Your task to perform on an android device: Open the calendar and show me this week's events Image 0: 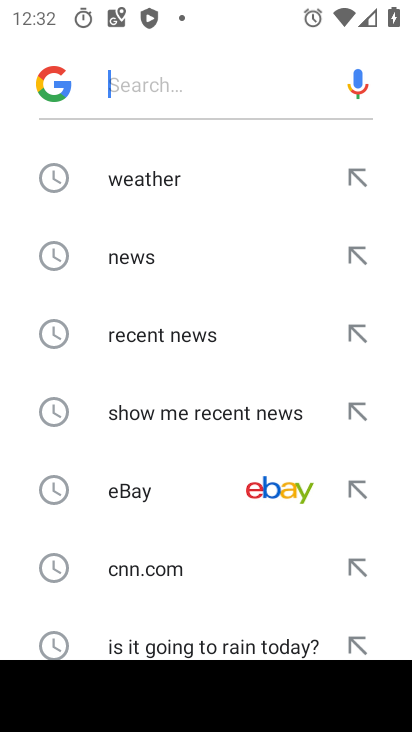
Step 0: press home button
Your task to perform on an android device: Open the calendar and show me this week's events Image 1: 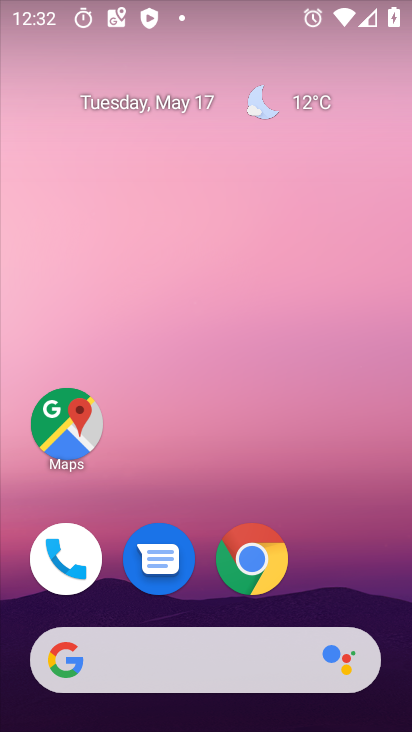
Step 1: drag from (276, 532) to (246, 141)
Your task to perform on an android device: Open the calendar and show me this week's events Image 2: 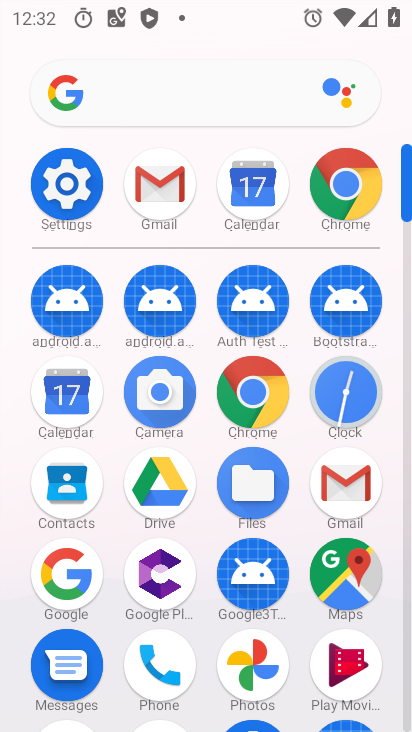
Step 2: click (72, 398)
Your task to perform on an android device: Open the calendar and show me this week's events Image 3: 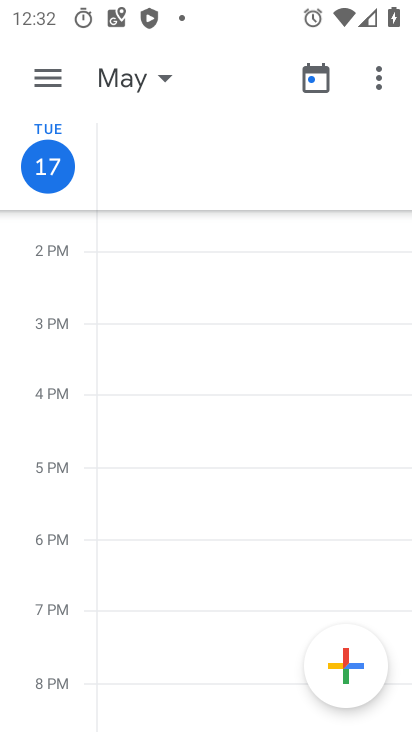
Step 3: click (111, 78)
Your task to perform on an android device: Open the calendar and show me this week's events Image 4: 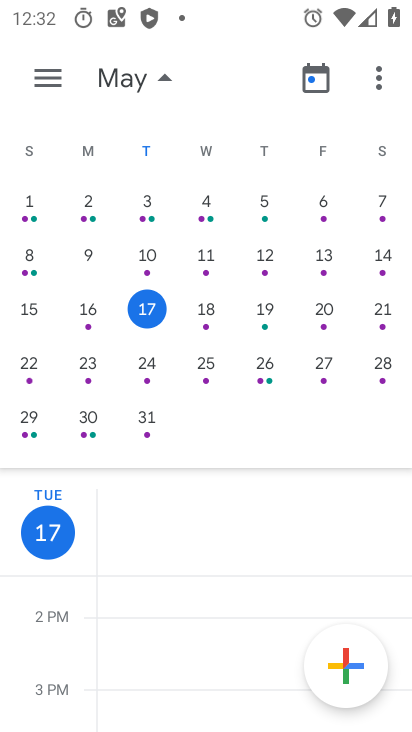
Step 4: click (54, 80)
Your task to perform on an android device: Open the calendar and show me this week's events Image 5: 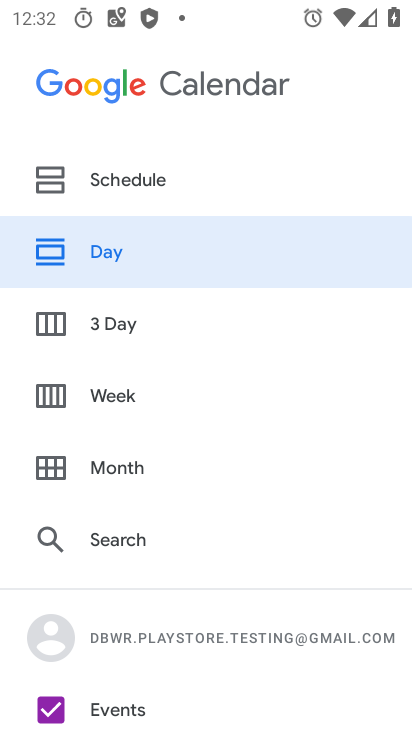
Step 5: click (113, 391)
Your task to perform on an android device: Open the calendar and show me this week's events Image 6: 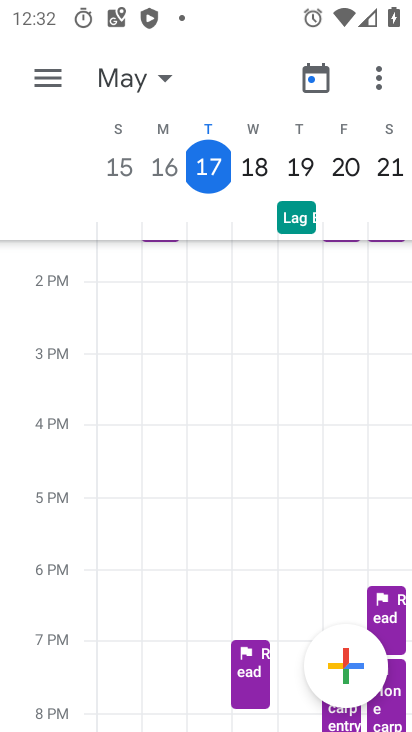
Step 6: task complete